Your task to perform on an android device: Go to notification settings Image 0: 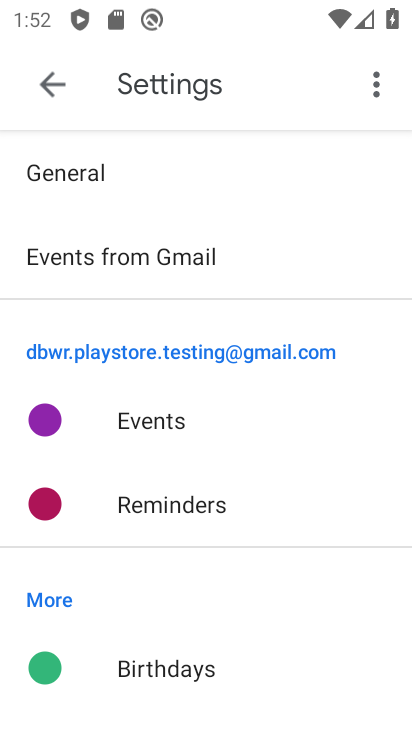
Step 0: press home button
Your task to perform on an android device: Go to notification settings Image 1: 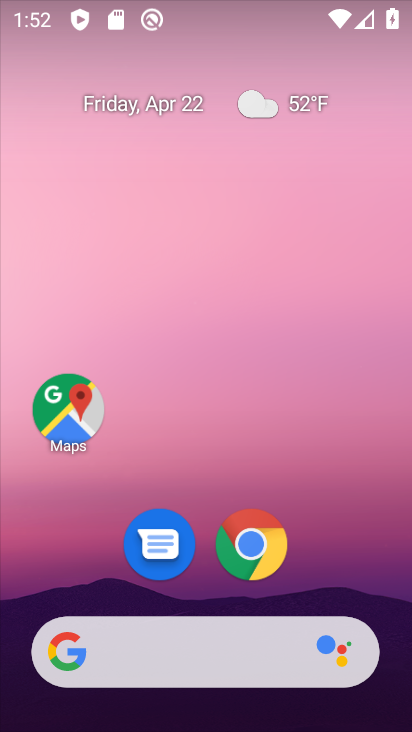
Step 1: drag from (330, 568) to (205, 222)
Your task to perform on an android device: Go to notification settings Image 2: 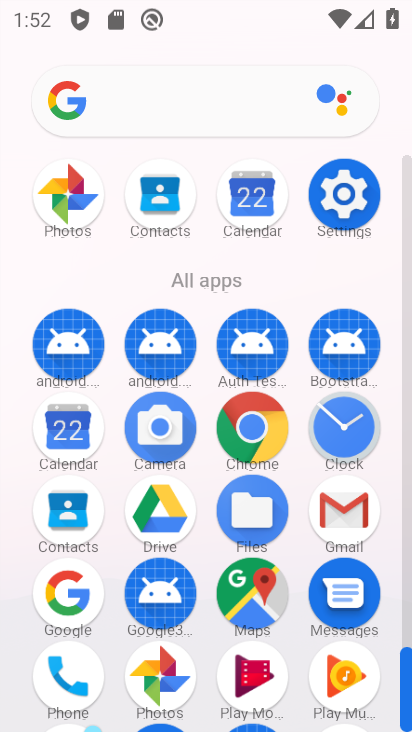
Step 2: click (365, 189)
Your task to perform on an android device: Go to notification settings Image 3: 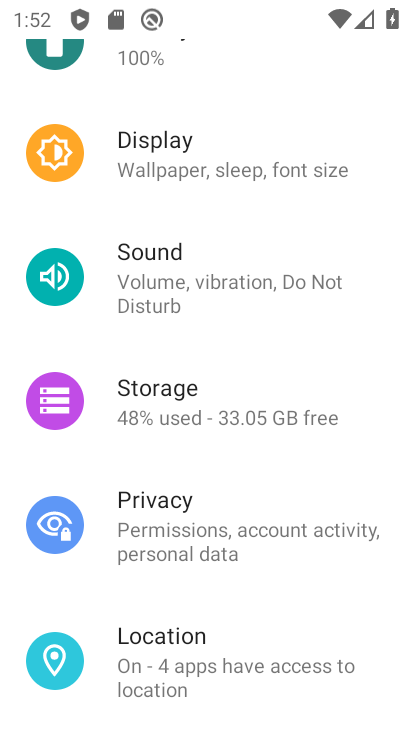
Step 3: drag from (250, 100) to (169, 619)
Your task to perform on an android device: Go to notification settings Image 4: 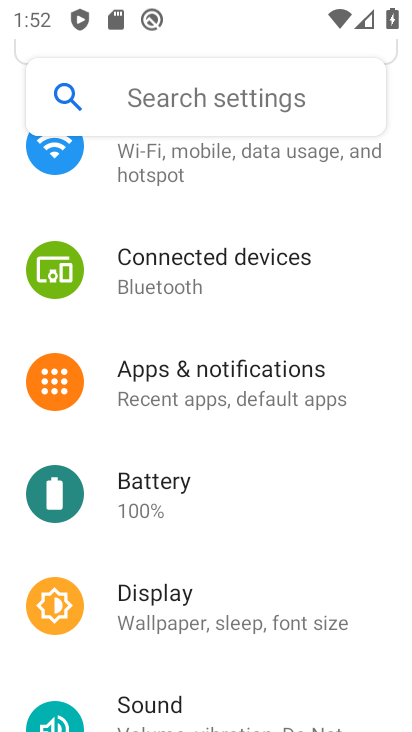
Step 4: click (189, 373)
Your task to perform on an android device: Go to notification settings Image 5: 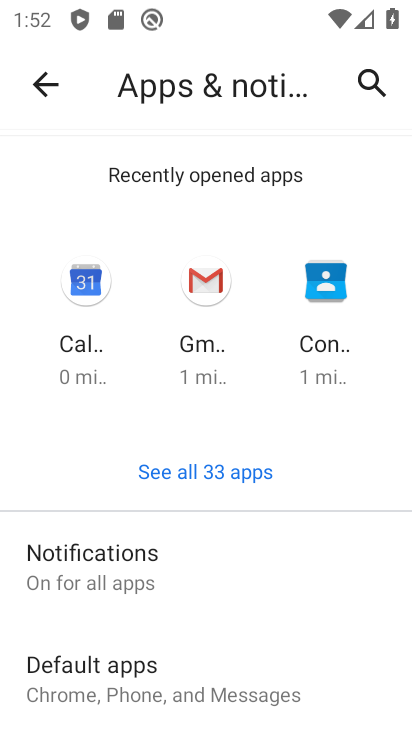
Step 5: click (95, 579)
Your task to perform on an android device: Go to notification settings Image 6: 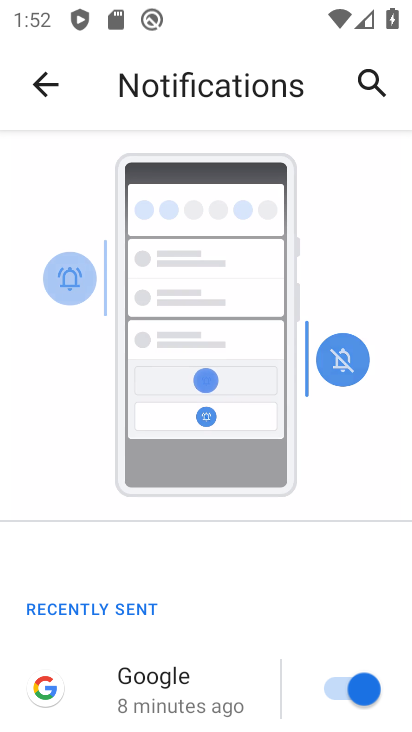
Step 6: task complete